Your task to perform on an android device: delete browsing data in the chrome app Image 0: 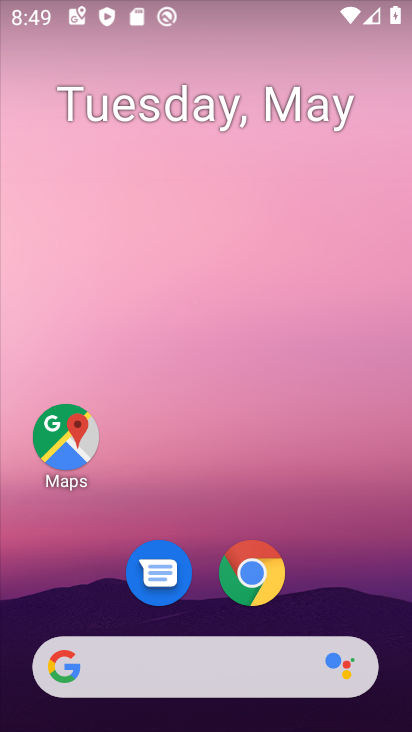
Step 0: drag from (354, 633) to (119, 140)
Your task to perform on an android device: delete browsing data in the chrome app Image 1: 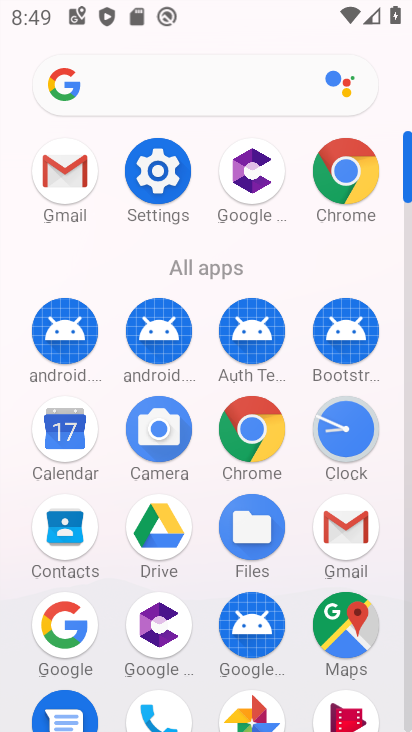
Step 1: click (349, 172)
Your task to perform on an android device: delete browsing data in the chrome app Image 2: 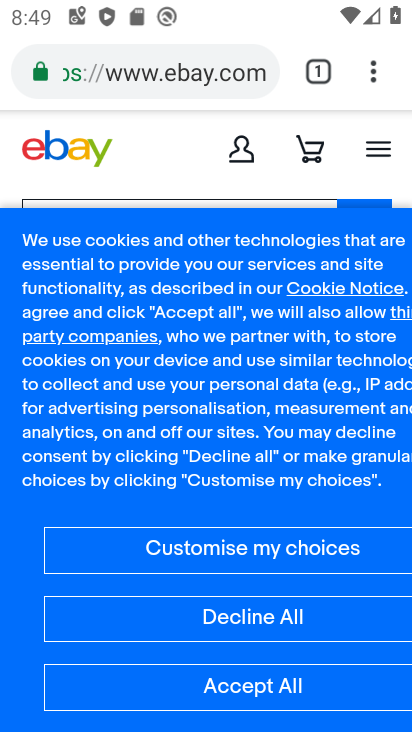
Step 2: drag from (364, 69) to (129, 408)
Your task to perform on an android device: delete browsing data in the chrome app Image 3: 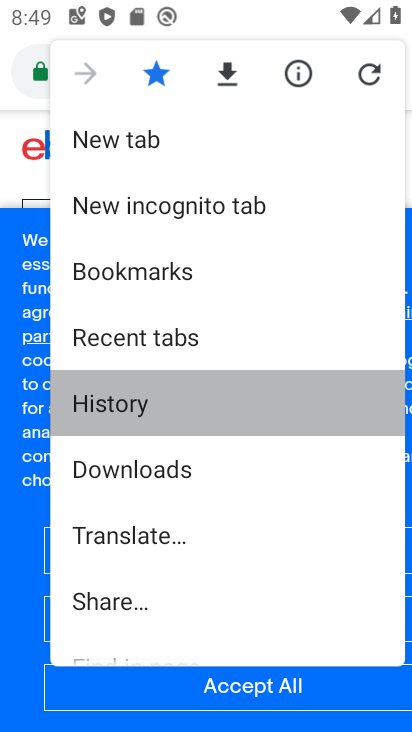
Step 3: click (125, 413)
Your task to perform on an android device: delete browsing data in the chrome app Image 4: 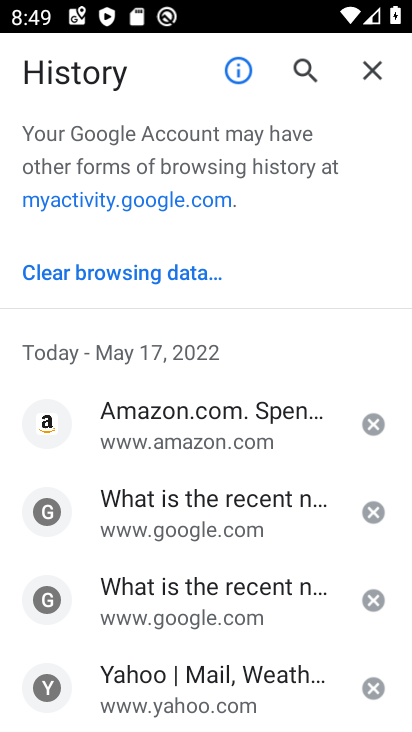
Step 4: click (133, 276)
Your task to perform on an android device: delete browsing data in the chrome app Image 5: 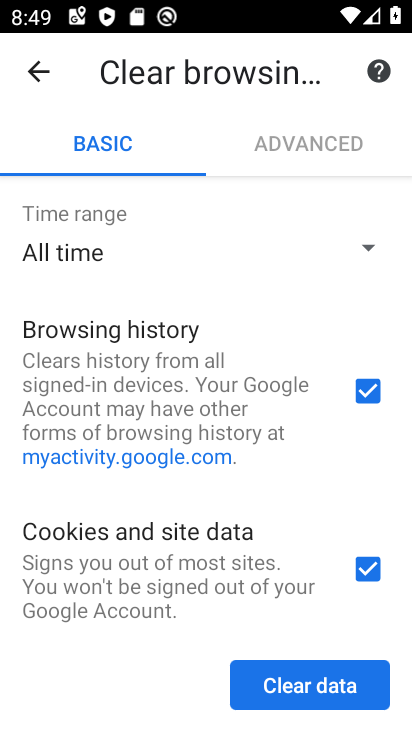
Step 5: click (325, 695)
Your task to perform on an android device: delete browsing data in the chrome app Image 6: 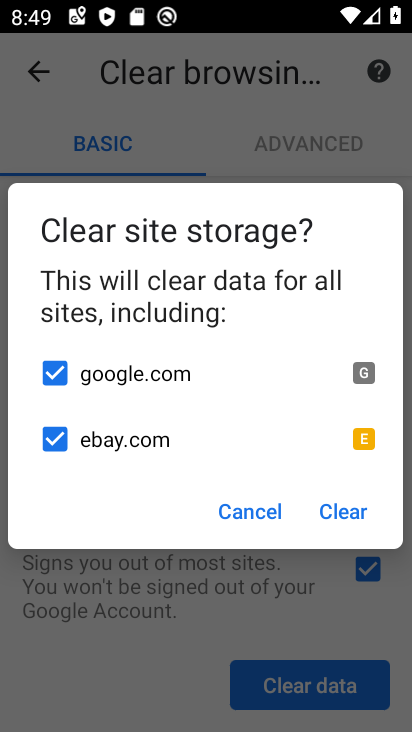
Step 6: click (341, 511)
Your task to perform on an android device: delete browsing data in the chrome app Image 7: 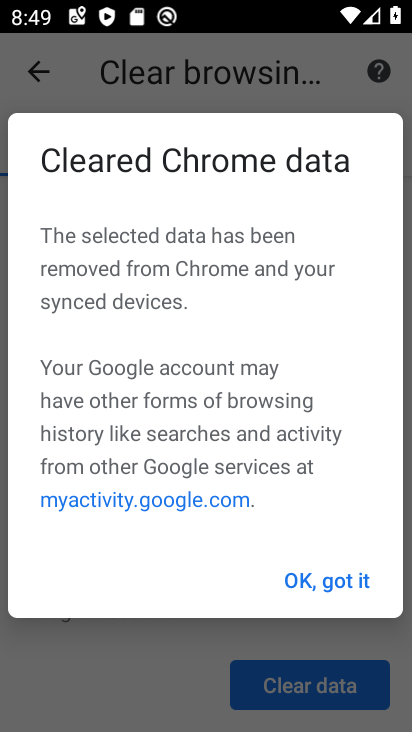
Step 7: click (322, 581)
Your task to perform on an android device: delete browsing data in the chrome app Image 8: 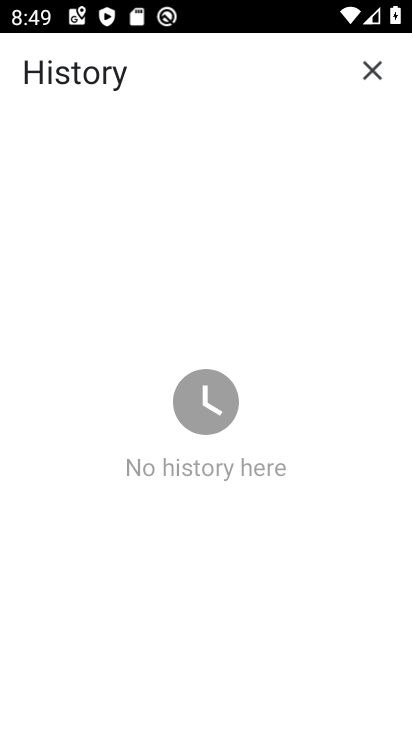
Step 8: task complete